Your task to perform on an android device: turn off location history Image 0: 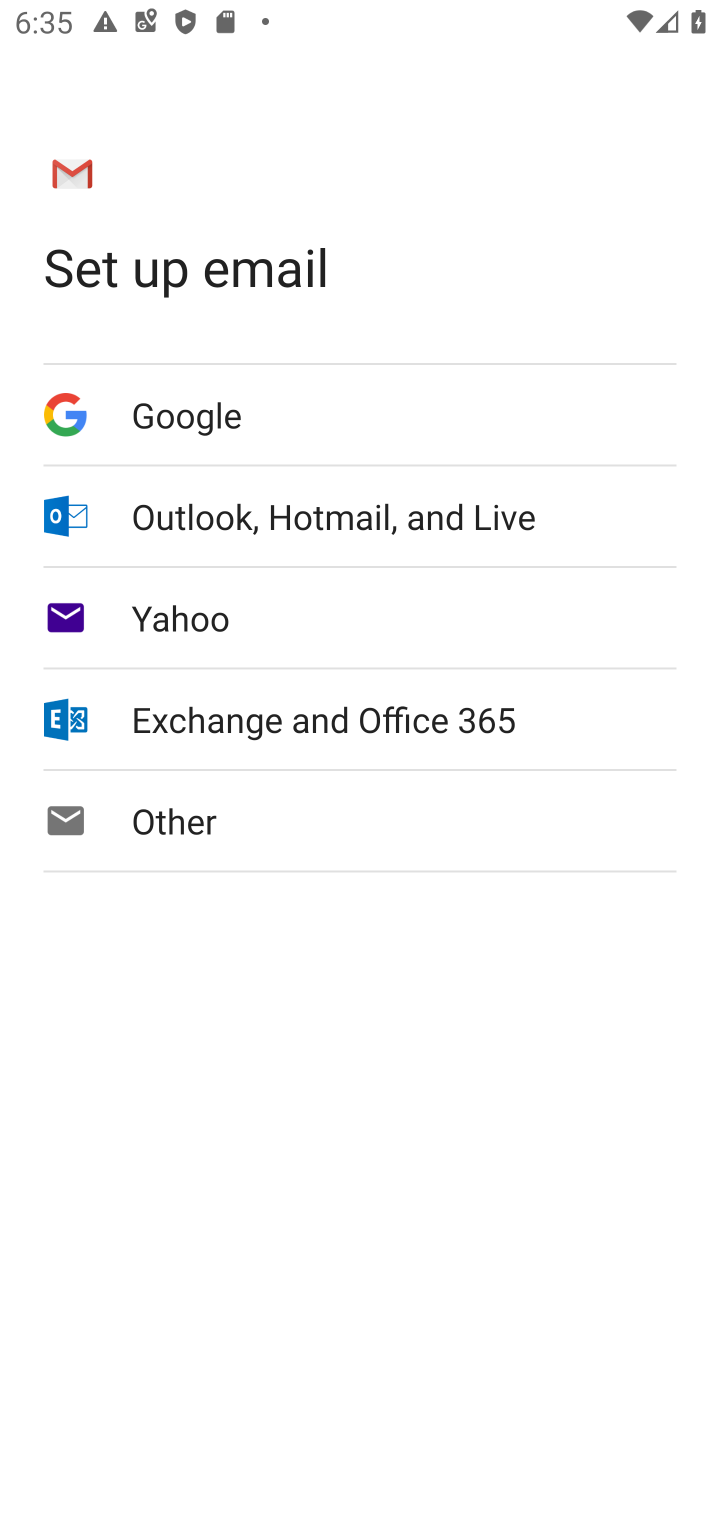
Step 0: press home button
Your task to perform on an android device: turn off location history Image 1: 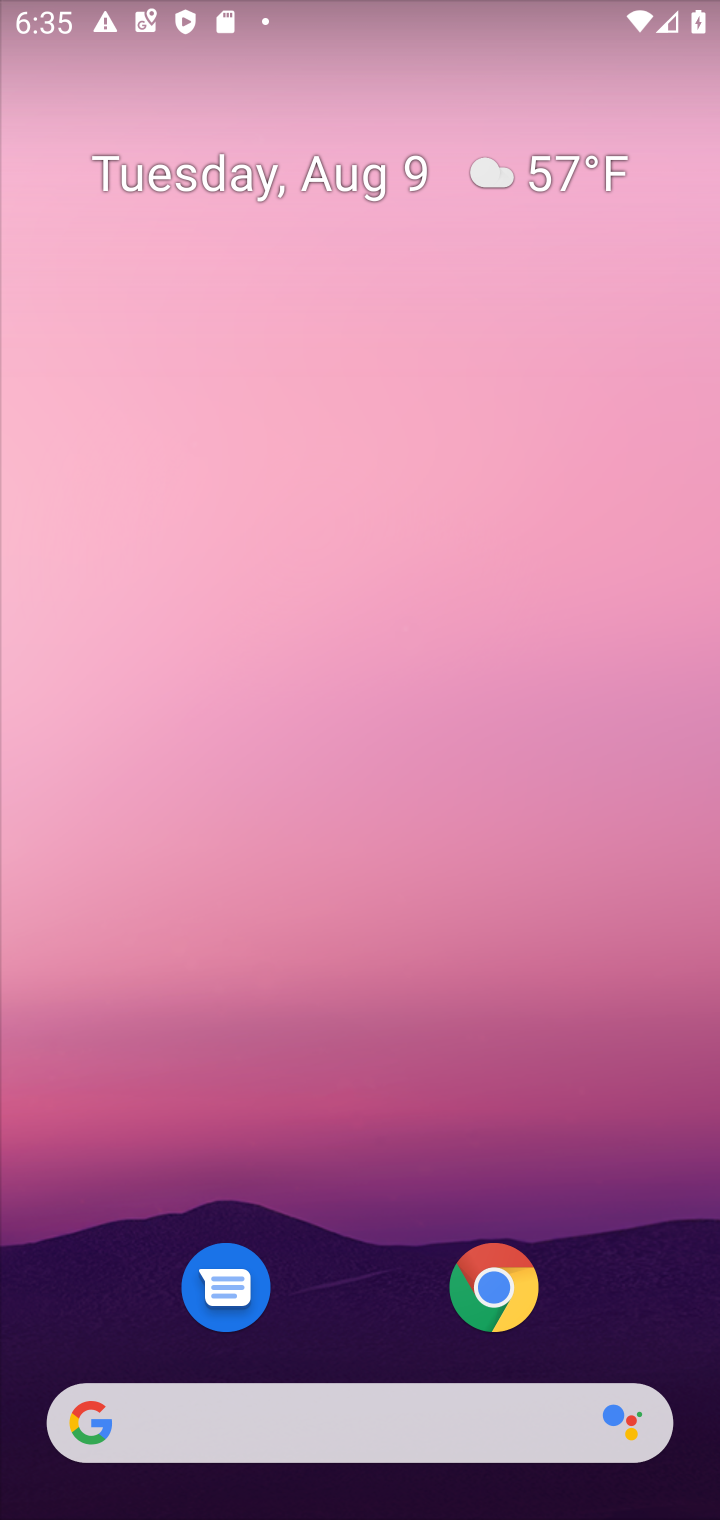
Step 1: drag from (309, 1160) to (492, 443)
Your task to perform on an android device: turn off location history Image 2: 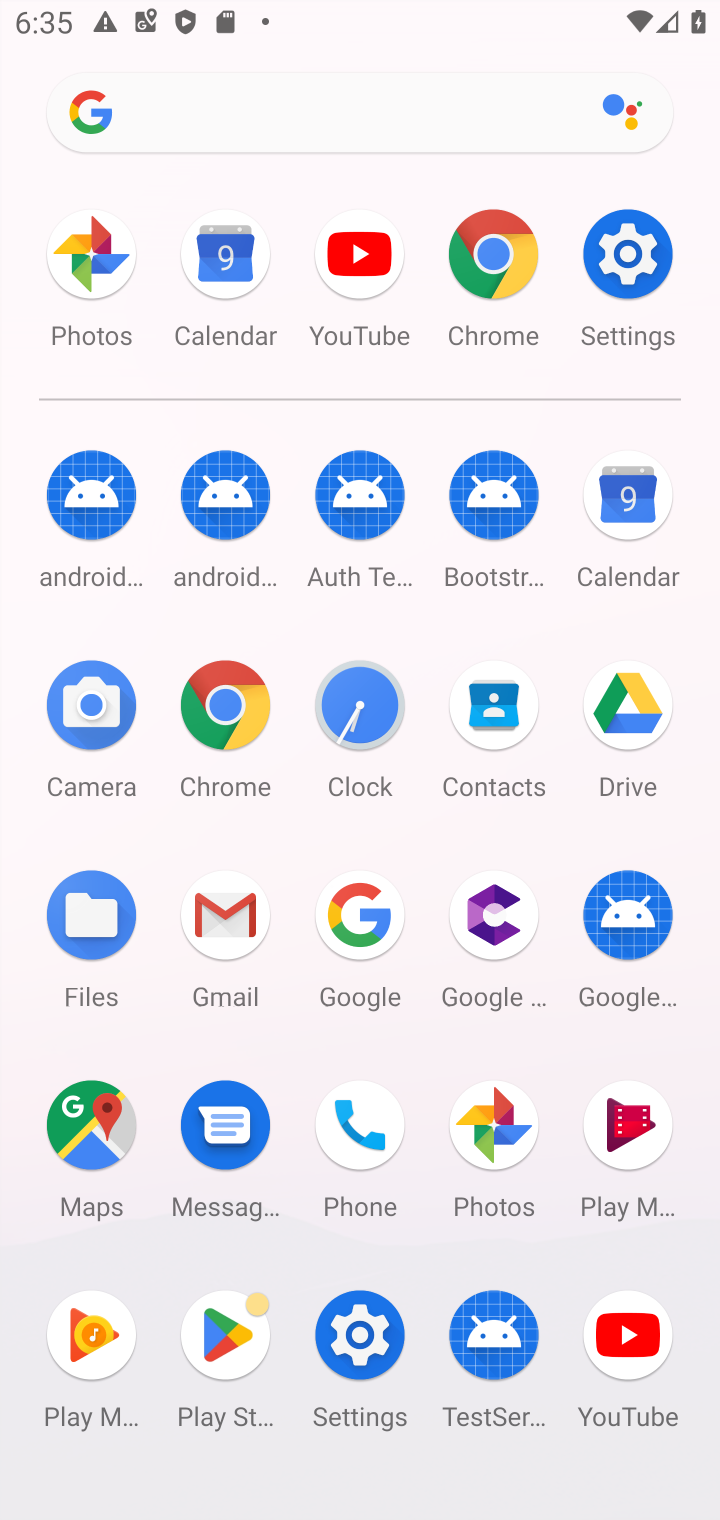
Step 2: click (599, 272)
Your task to perform on an android device: turn off location history Image 3: 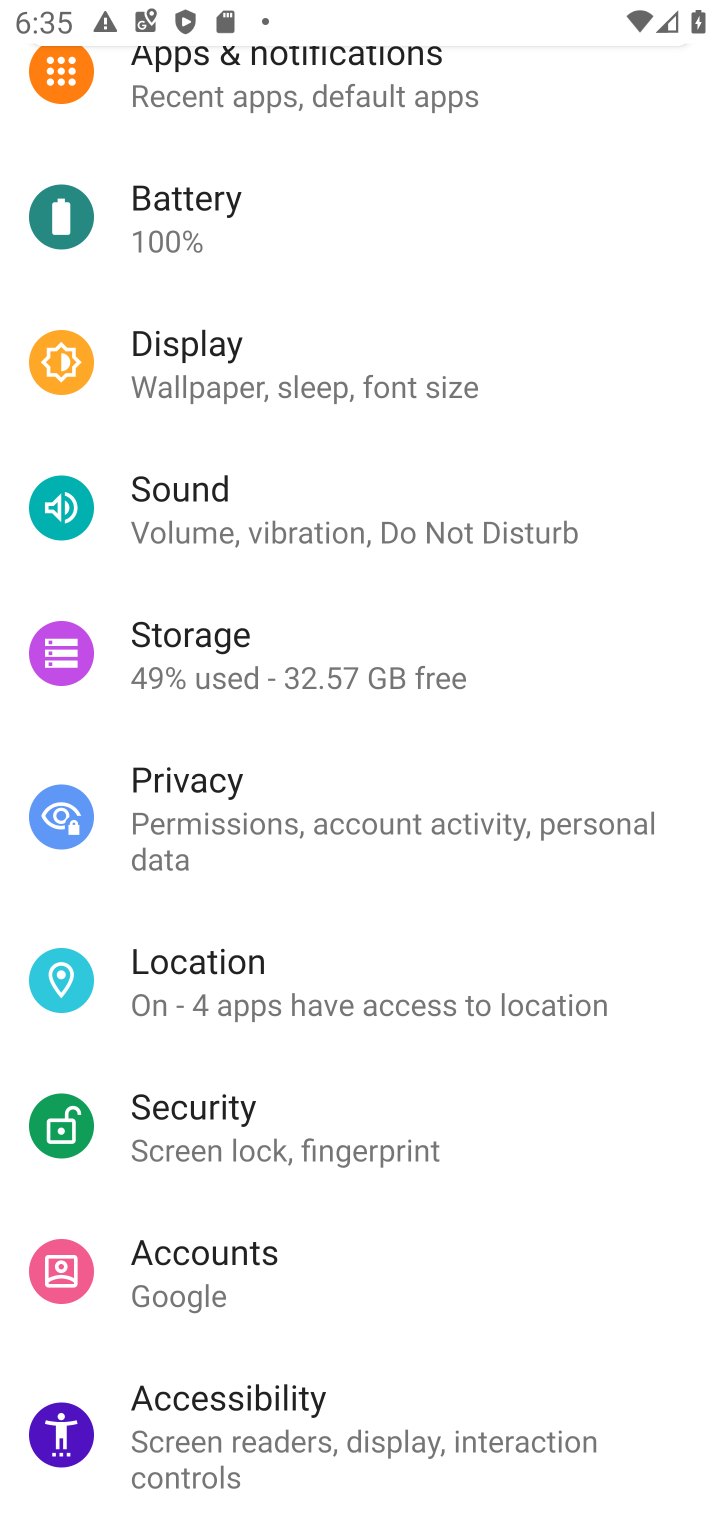
Step 3: task complete